Your task to perform on an android device: turn on location history Image 0: 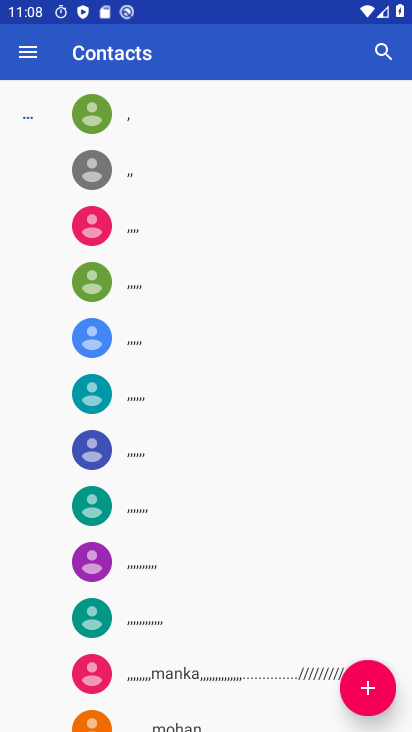
Step 0: press home button
Your task to perform on an android device: turn on location history Image 1: 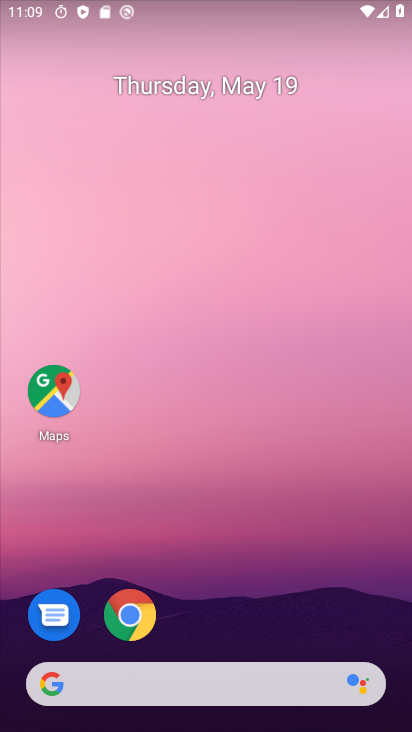
Step 1: drag from (350, 582) to (264, 163)
Your task to perform on an android device: turn on location history Image 2: 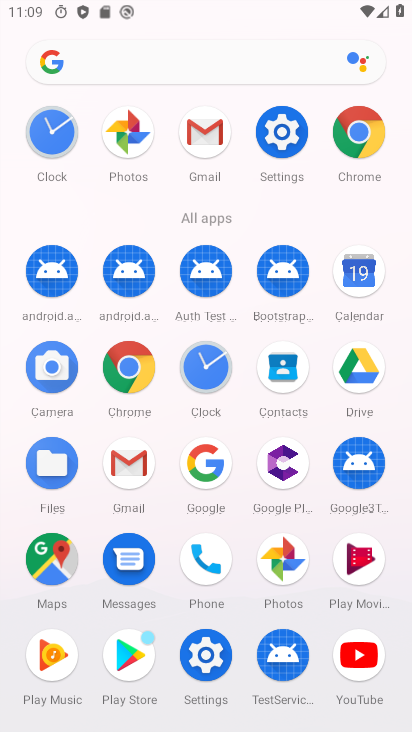
Step 2: click (277, 148)
Your task to perform on an android device: turn on location history Image 3: 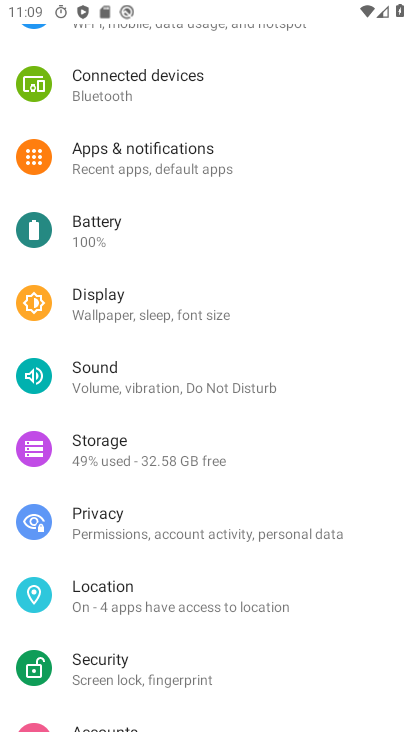
Step 3: click (108, 576)
Your task to perform on an android device: turn on location history Image 4: 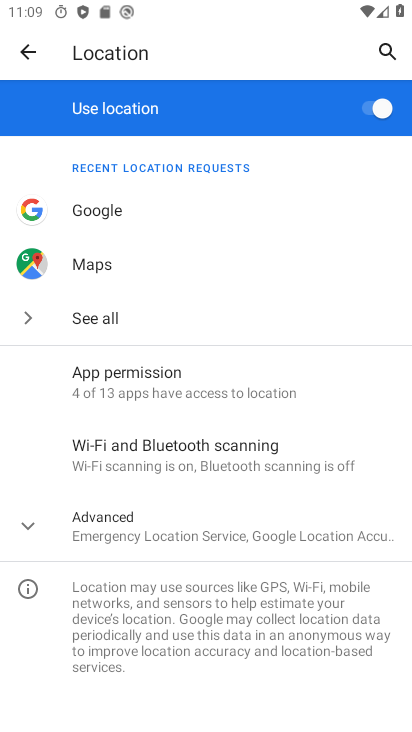
Step 4: click (162, 532)
Your task to perform on an android device: turn on location history Image 5: 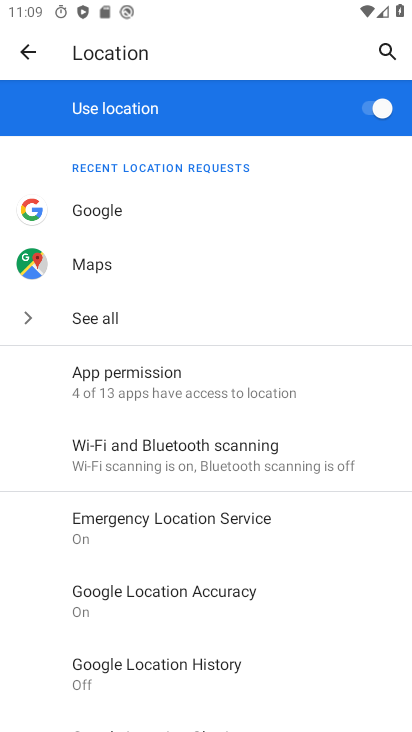
Step 5: click (266, 663)
Your task to perform on an android device: turn on location history Image 6: 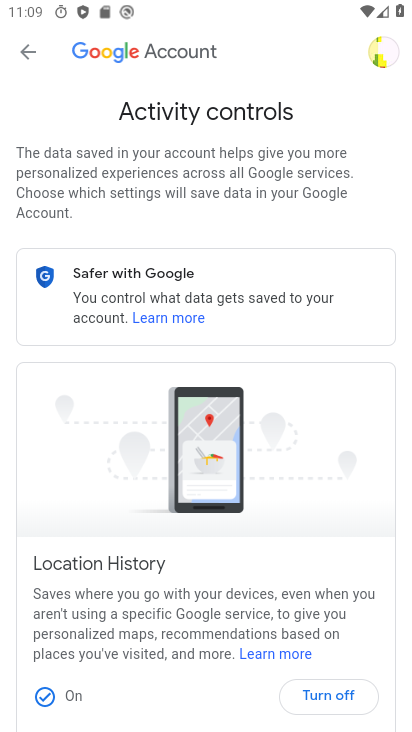
Step 6: task complete